Your task to perform on an android device: turn on bluetooth scan Image 0: 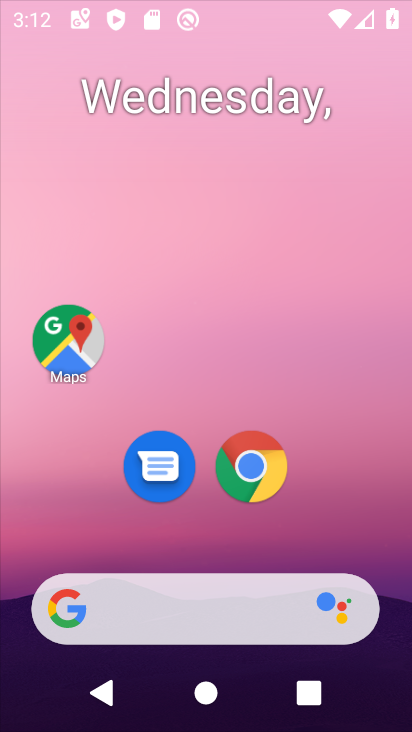
Step 0: click (59, 325)
Your task to perform on an android device: turn on bluetooth scan Image 1: 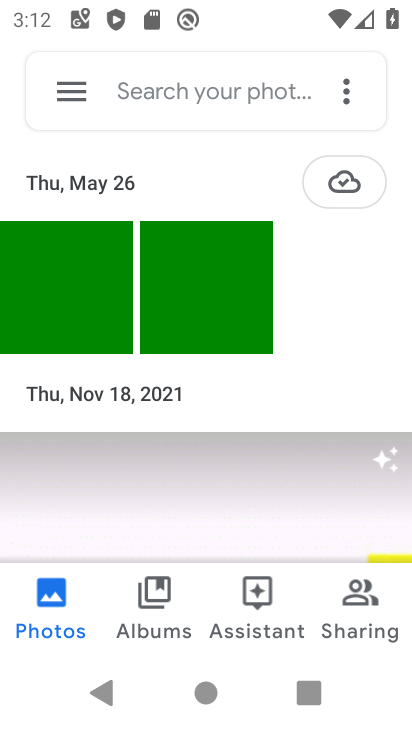
Step 1: press home button
Your task to perform on an android device: turn on bluetooth scan Image 2: 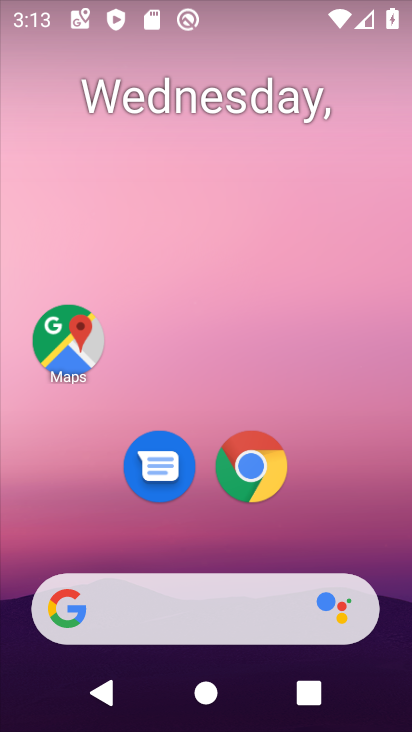
Step 2: drag from (203, 549) to (277, 2)
Your task to perform on an android device: turn on bluetooth scan Image 3: 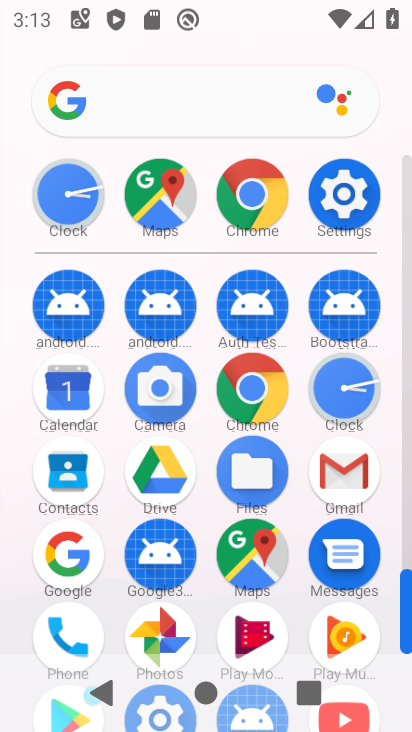
Step 3: click (340, 215)
Your task to perform on an android device: turn on bluetooth scan Image 4: 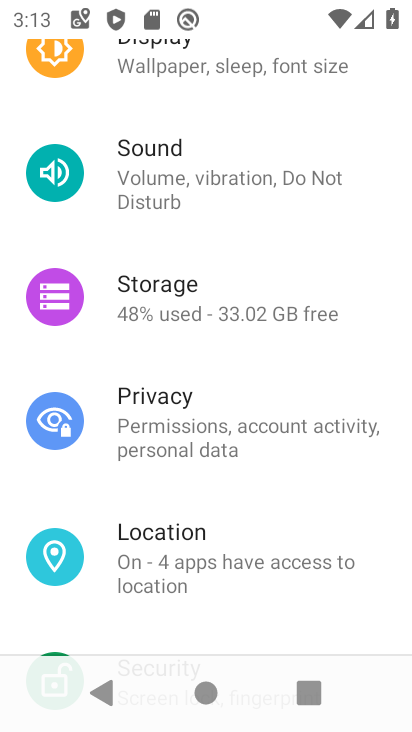
Step 4: click (155, 547)
Your task to perform on an android device: turn on bluetooth scan Image 5: 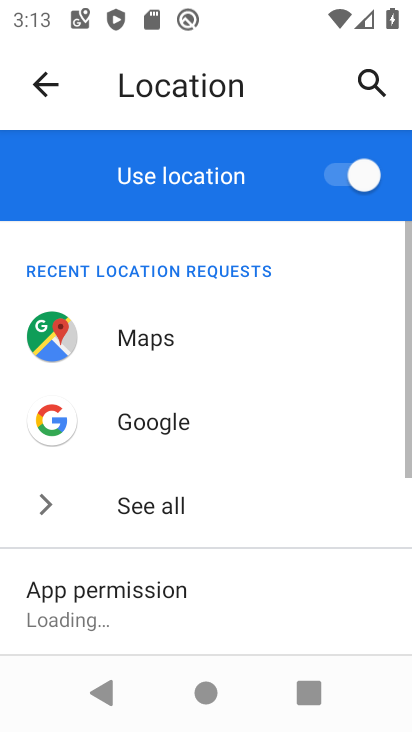
Step 5: drag from (201, 575) to (152, 179)
Your task to perform on an android device: turn on bluetooth scan Image 6: 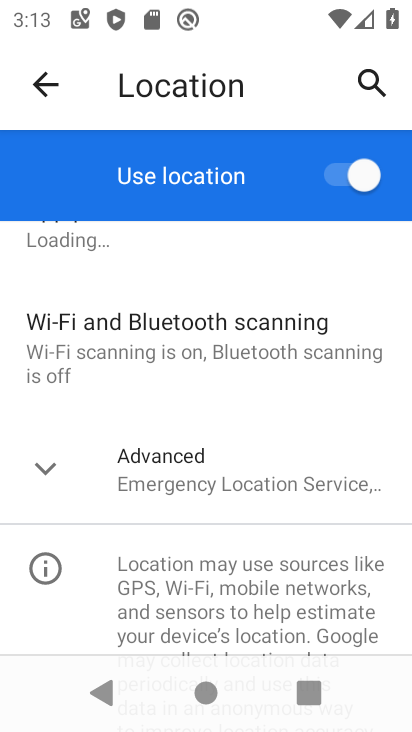
Step 6: click (199, 484)
Your task to perform on an android device: turn on bluetooth scan Image 7: 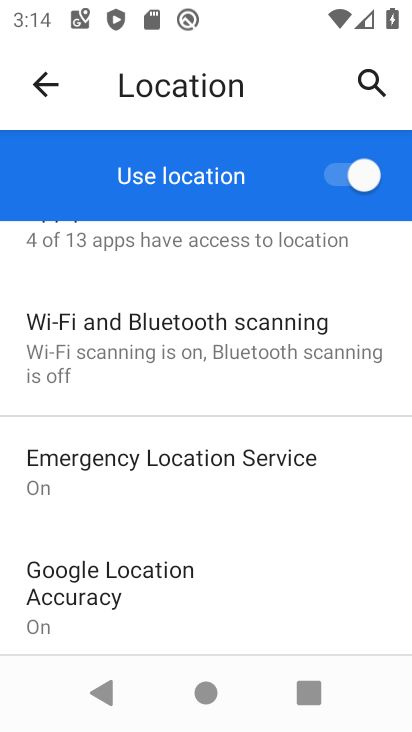
Step 7: drag from (187, 575) to (142, 279)
Your task to perform on an android device: turn on bluetooth scan Image 8: 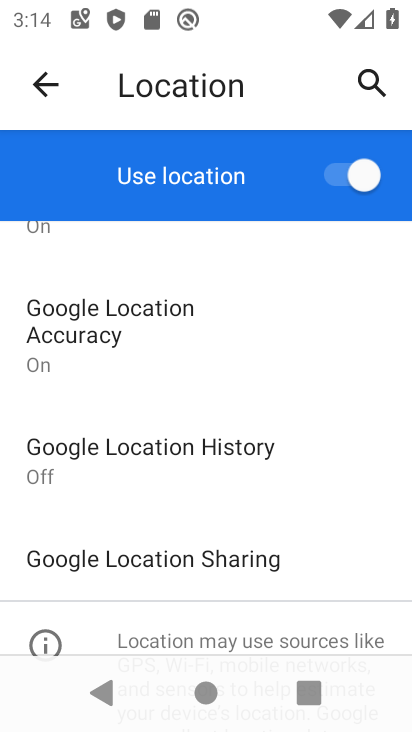
Step 8: drag from (167, 299) to (157, 728)
Your task to perform on an android device: turn on bluetooth scan Image 9: 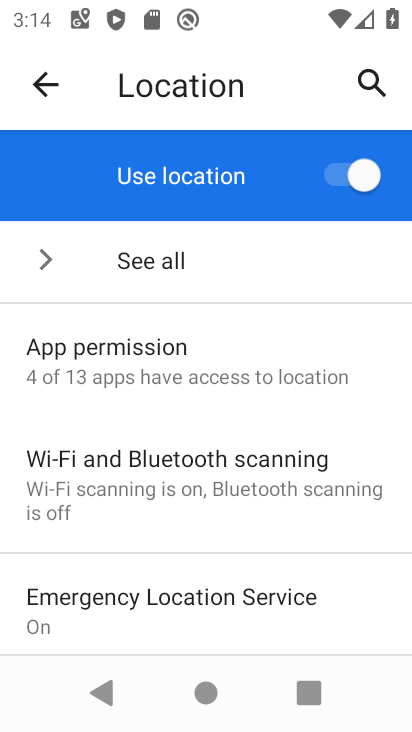
Step 9: click (209, 503)
Your task to perform on an android device: turn on bluetooth scan Image 10: 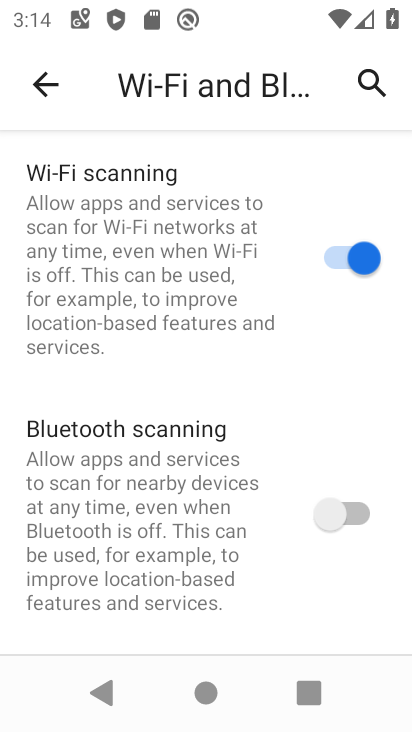
Step 10: click (338, 512)
Your task to perform on an android device: turn on bluetooth scan Image 11: 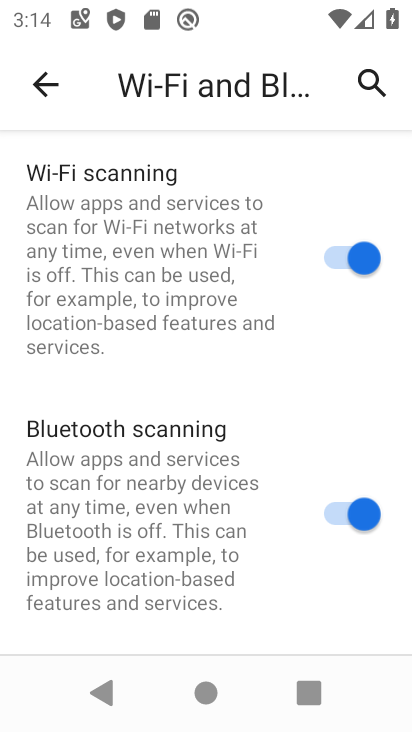
Step 11: task complete